Your task to perform on an android device: set an alarm Image 0: 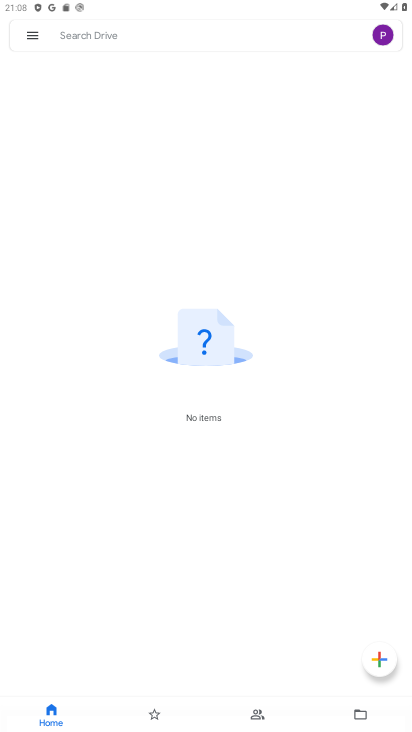
Step 0: press home button
Your task to perform on an android device: set an alarm Image 1: 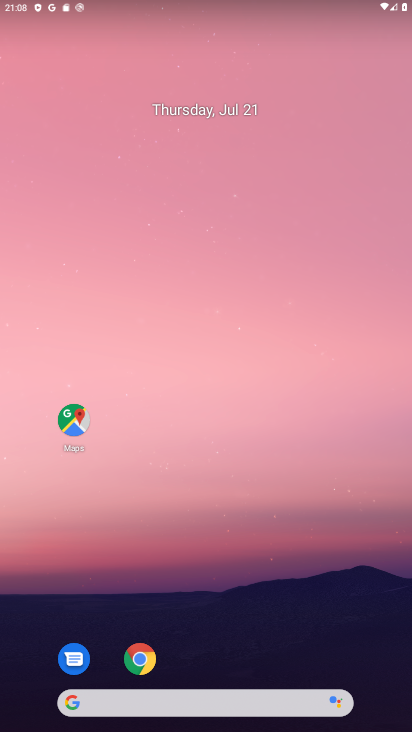
Step 1: drag from (324, 635) to (318, 278)
Your task to perform on an android device: set an alarm Image 2: 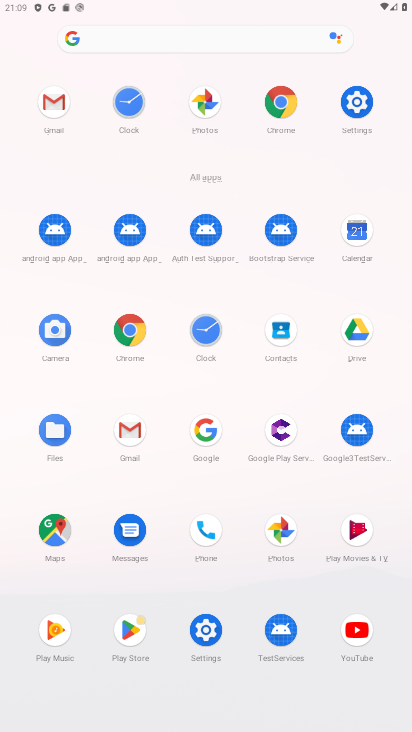
Step 2: click (203, 342)
Your task to perform on an android device: set an alarm Image 3: 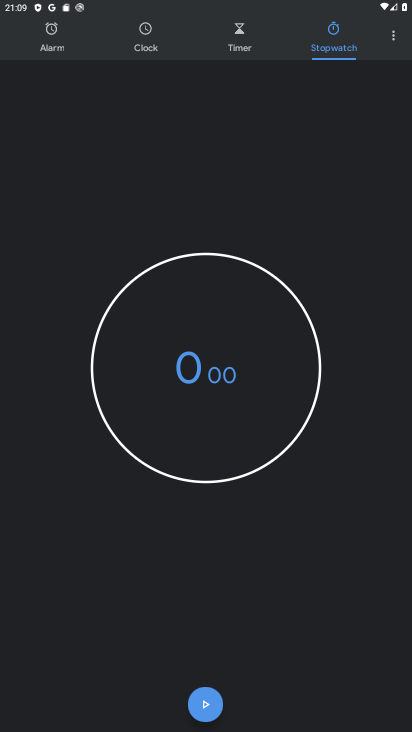
Step 3: click (57, 33)
Your task to perform on an android device: set an alarm Image 4: 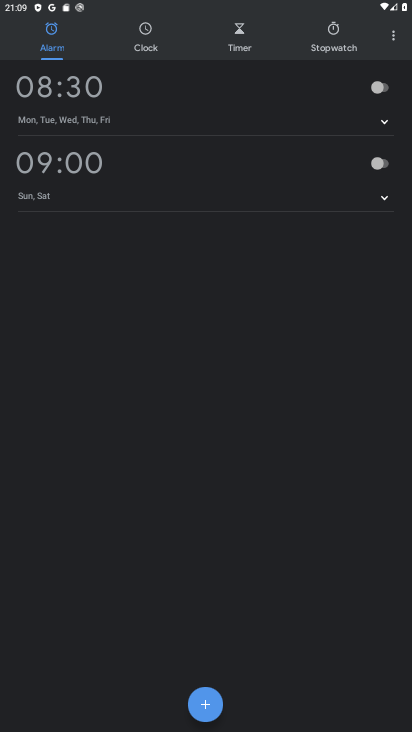
Step 4: click (201, 702)
Your task to perform on an android device: set an alarm Image 5: 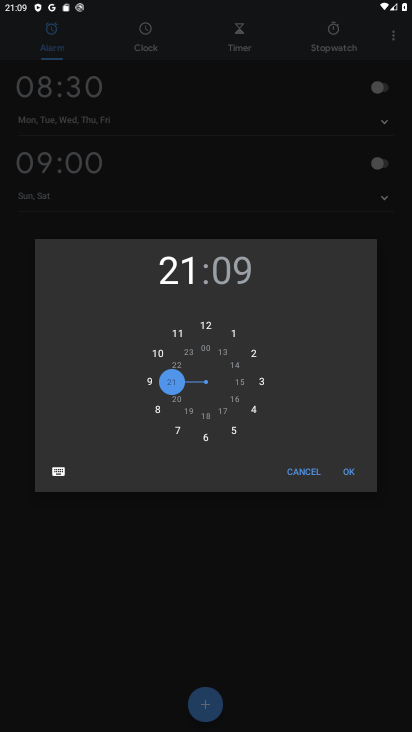
Step 5: click (240, 420)
Your task to perform on an android device: set an alarm Image 6: 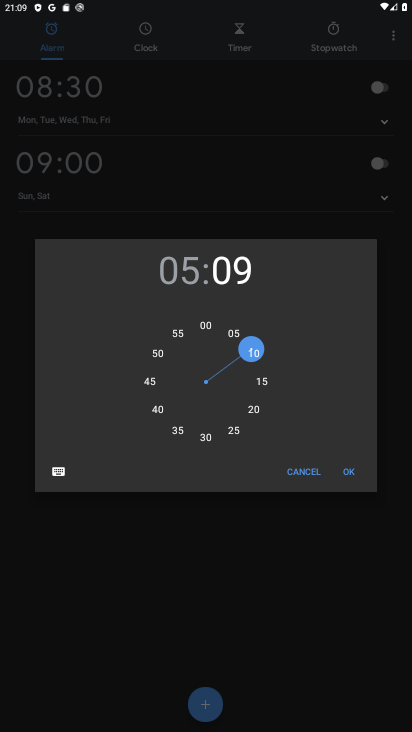
Step 6: click (351, 464)
Your task to perform on an android device: set an alarm Image 7: 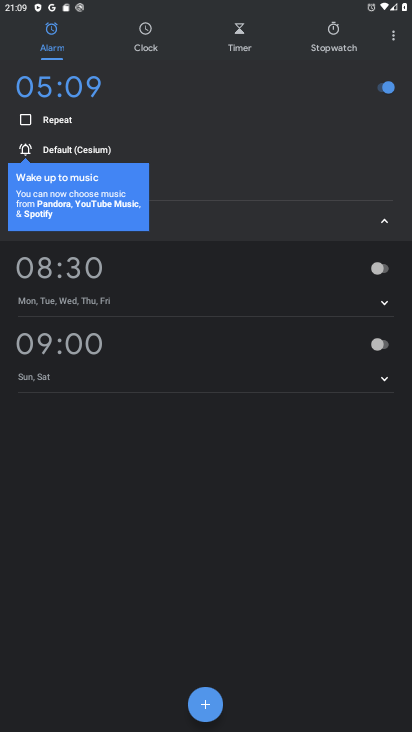
Step 7: task complete